Your task to perform on an android device: toggle notifications settings in the gmail app Image 0: 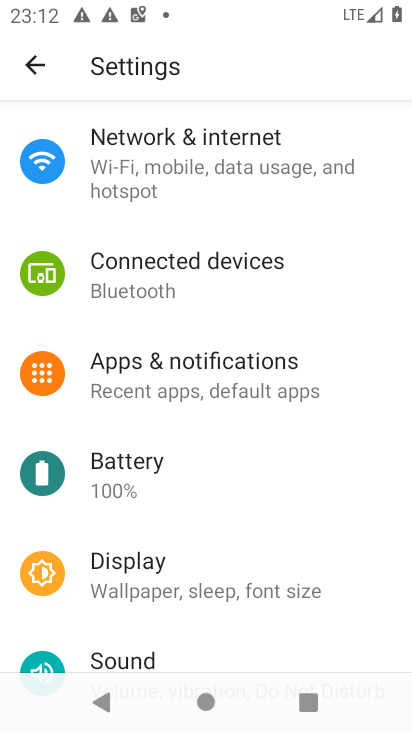
Step 0: press home button
Your task to perform on an android device: toggle notifications settings in the gmail app Image 1: 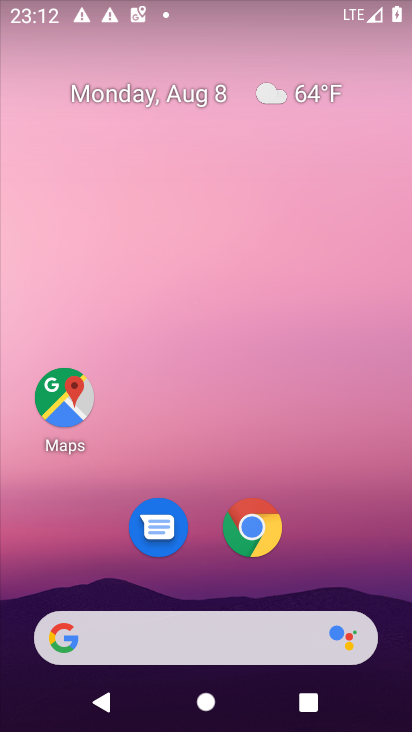
Step 1: drag from (396, 684) to (321, 195)
Your task to perform on an android device: toggle notifications settings in the gmail app Image 2: 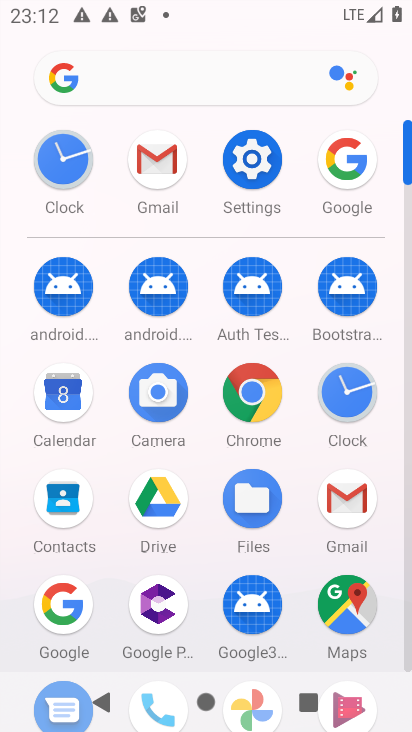
Step 2: click (353, 500)
Your task to perform on an android device: toggle notifications settings in the gmail app Image 3: 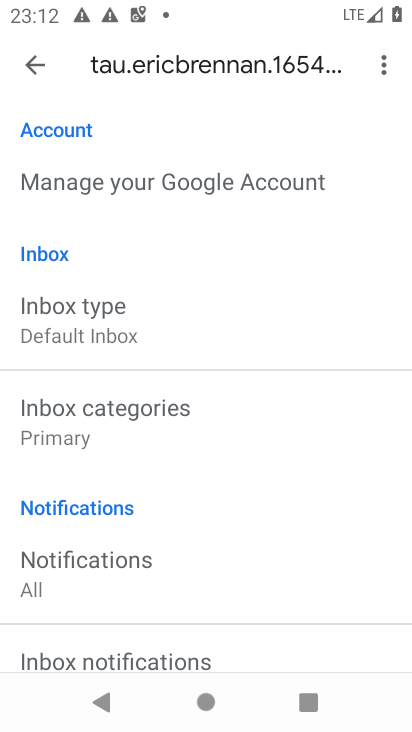
Step 3: click (89, 555)
Your task to perform on an android device: toggle notifications settings in the gmail app Image 4: 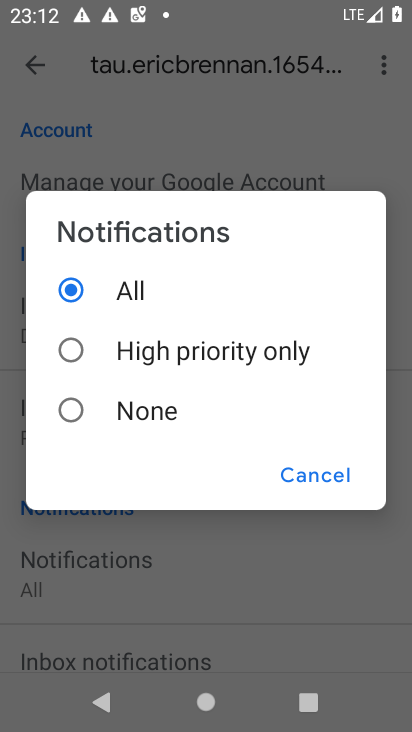
Step 4: click (67, 353)
Your task to perform on an android device: toggle notifications settings in the gmail app Image 5: 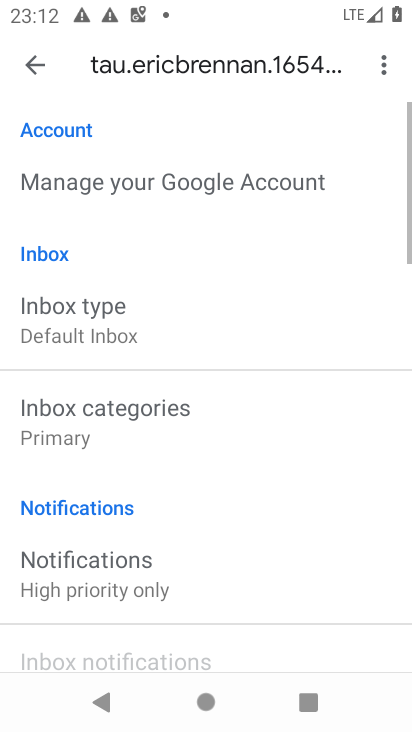
Step 5: task complete